Your task to perform on an android device: change the clock display to show seconds Image 0: 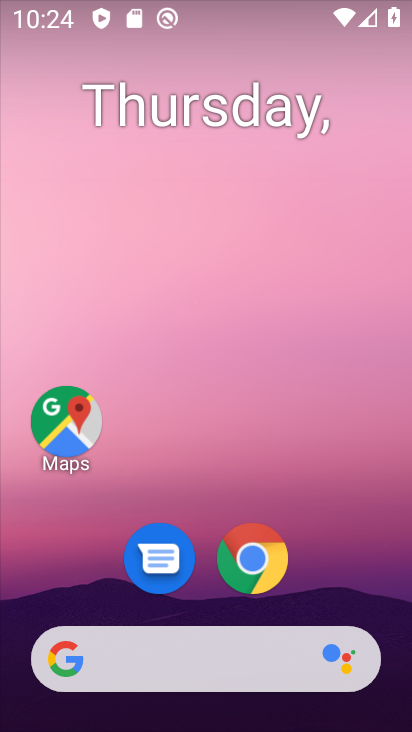
Step 0: drag from (297, 560) to (335, 54)
Your task to perform on an android device: change the clock display to show seconds Image 1: 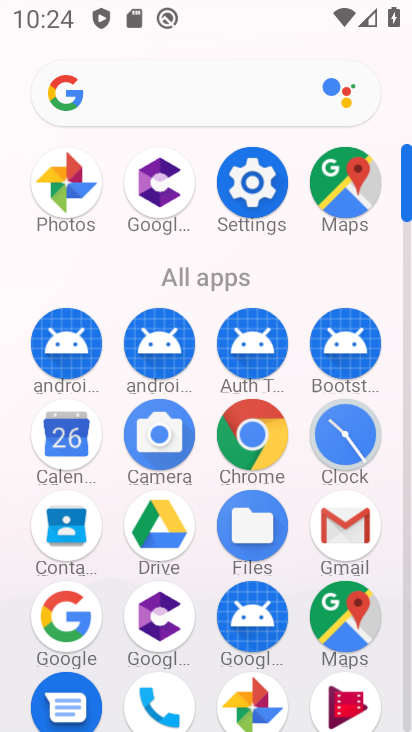
Step 1: click (341, 442)
Your task to perform on an android device: change the clock display to show seconds Image 2: 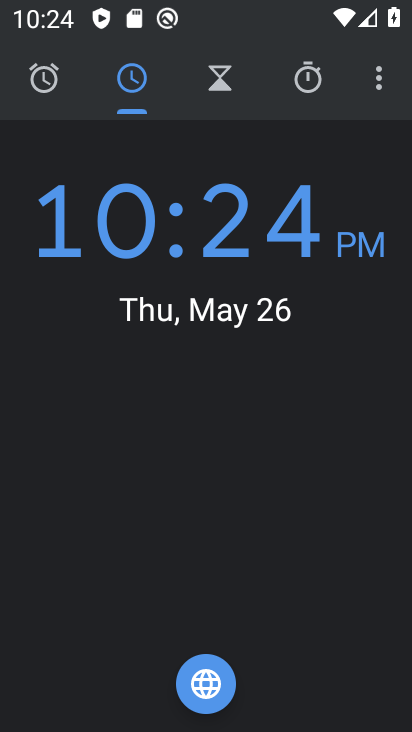
Step 2: click (370, 79)
Your task to perform on an android device: change the clock display to show seconds Image 3: 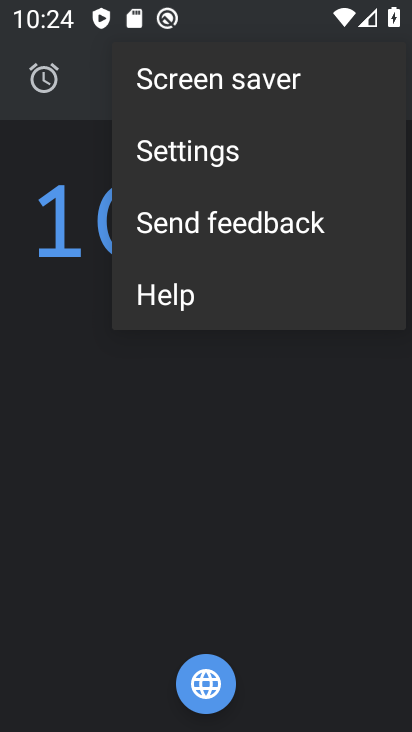
Step 3: click (200, 154)
Your task to perform on an android device: change the clock display to show seconds Image 4: 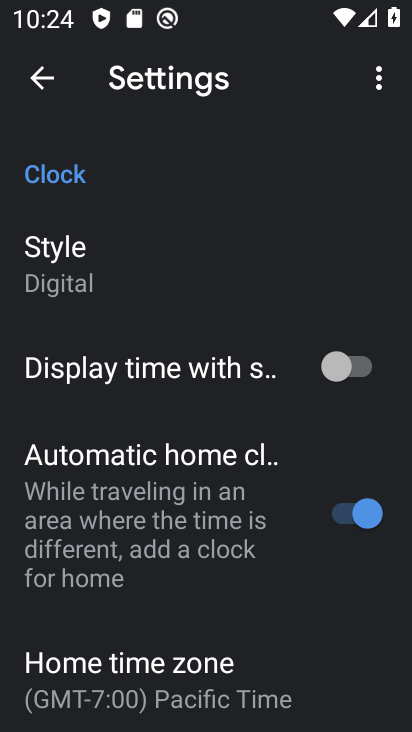
Step 4: click (352, 363)
Your task to perform on an android device: change the clock display to show seconds Image 5: 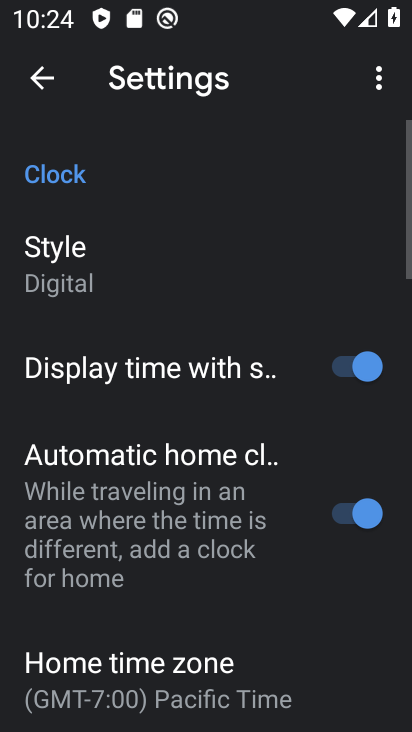
Step 5: task complete